Your task to perform on an android device: Go to sound settings Image 0: 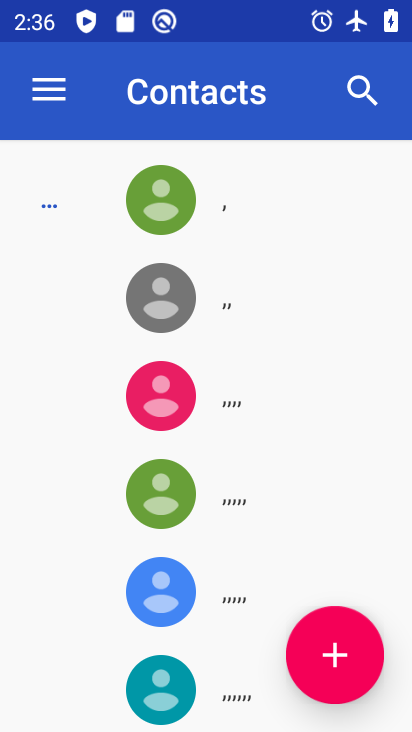
Step 0: press home button
Your task to perform on an android device: Go to sound settings Image 1: 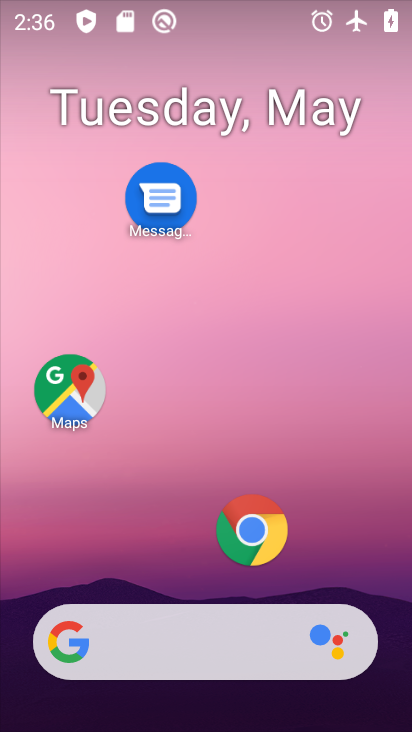
Step 1: drag from (197, 546) to (223, 279)
Your task to perform on an android device: Go to sound settings Image 2: 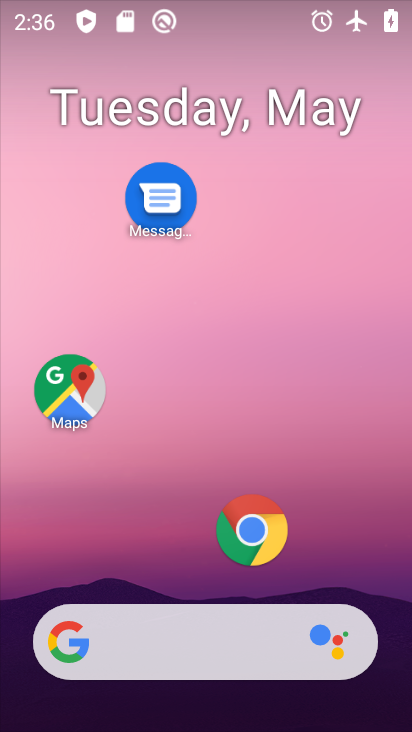
Step 2: drag from (183, 582) to (188, 271)
Your task to perform on an android device: Go to sound settings Image 3: 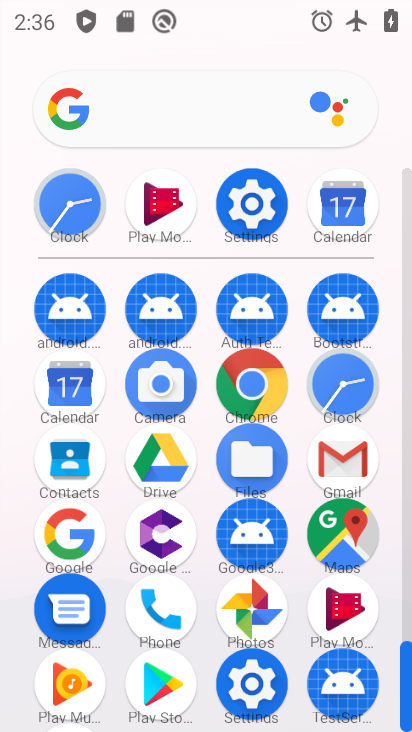
Step 3: click (241, 673)
Your task to perform on an android device: Go to sound settings Image 4: 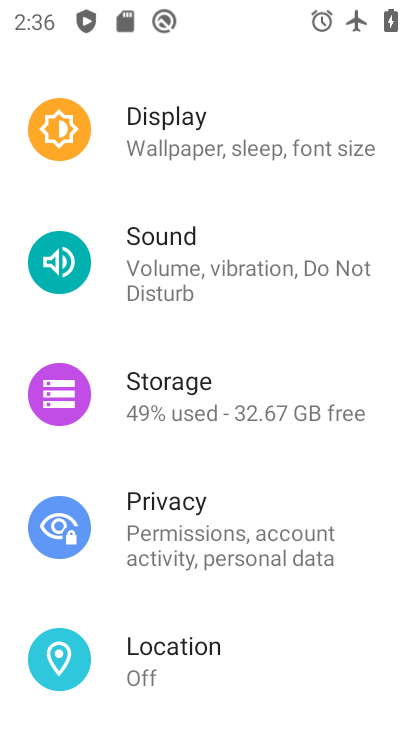
Step 4: click (244, 265)
Your task to perform on an android device: Go to sound settings Image 5: 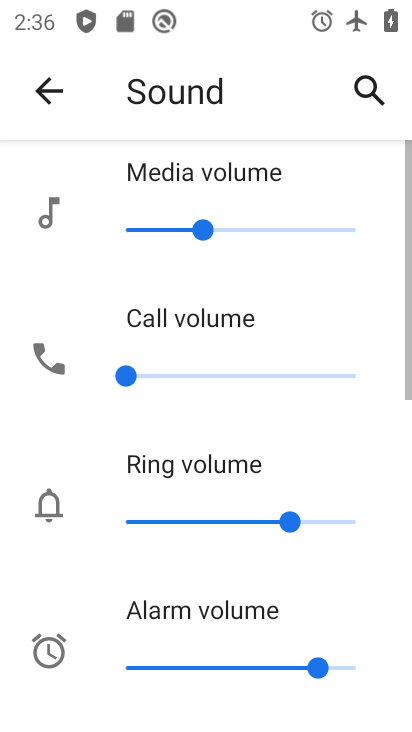
Step 5: task complete